Your task to perform on an android device: Play the last video I watched on Youtube Image 0: 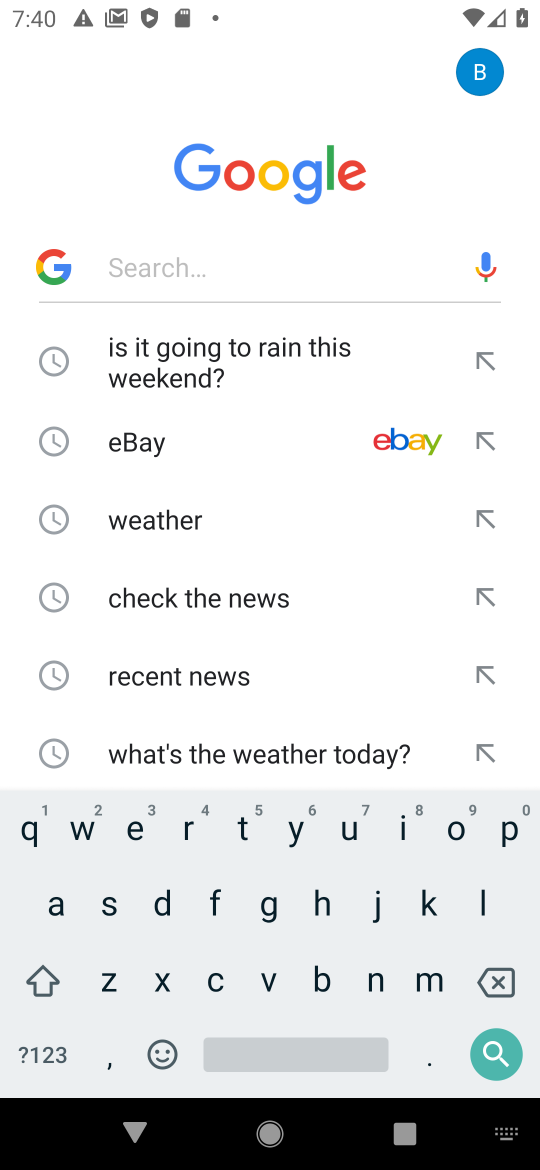
Step 0: press home button
Your task to perform on an android device: Play the last video I watched on Youtube Image 1: 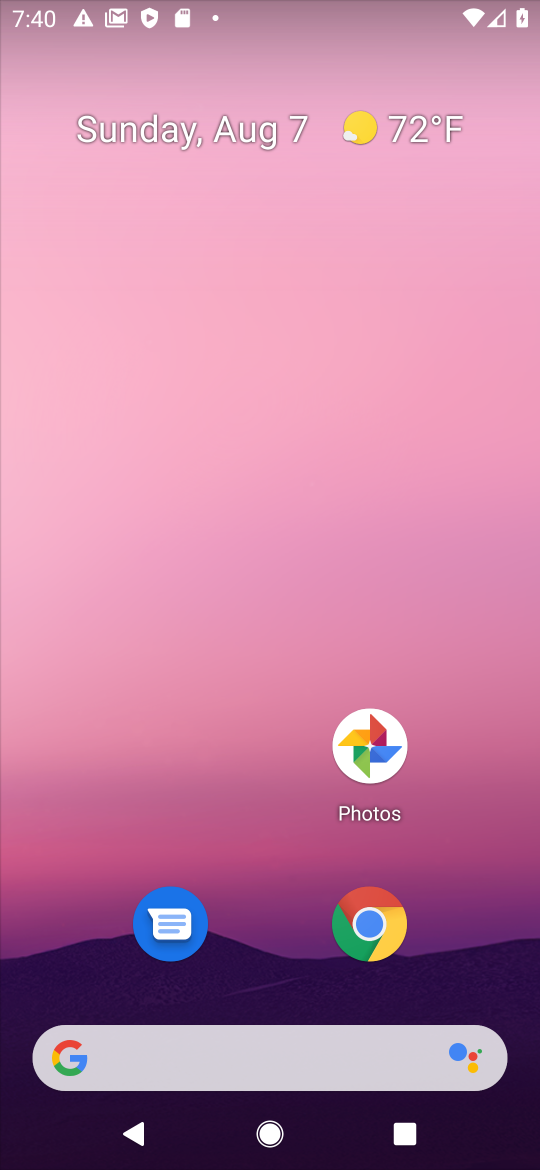
Step 1: drag from (313, 999) to (179, 430)
Your task to perform on an android device: Play the last video I watched on Youtube Image 2: 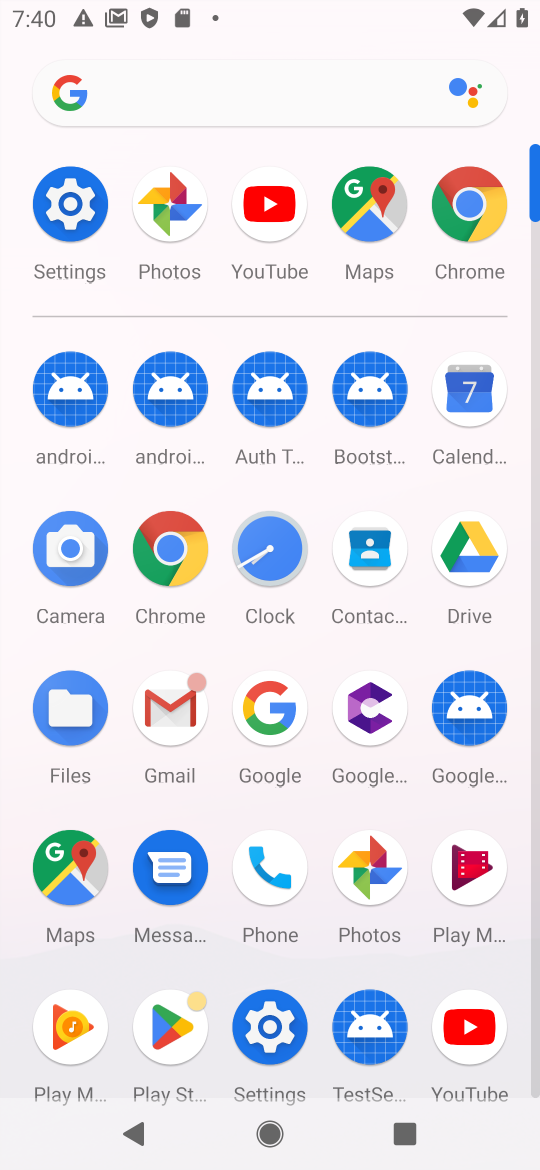
Step 2: click (451, 1035)
Your task to perform on an android device: Play the last video I watched on Youtube Image 3: 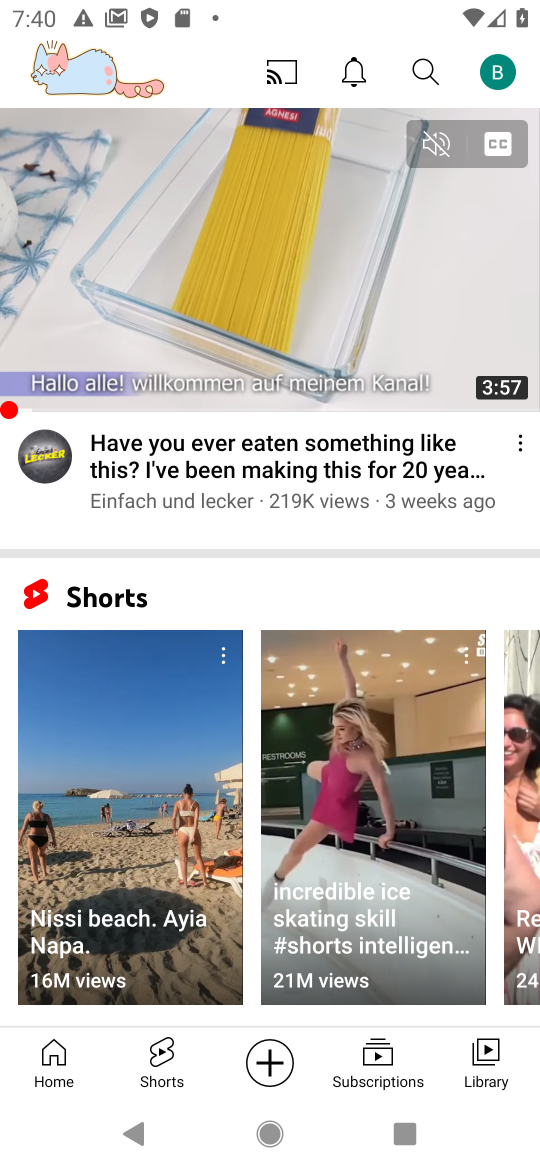
Step 3: click (482, 1064)
Your task to perform on an android device: Play the last video I watched on Youtube Image 4: 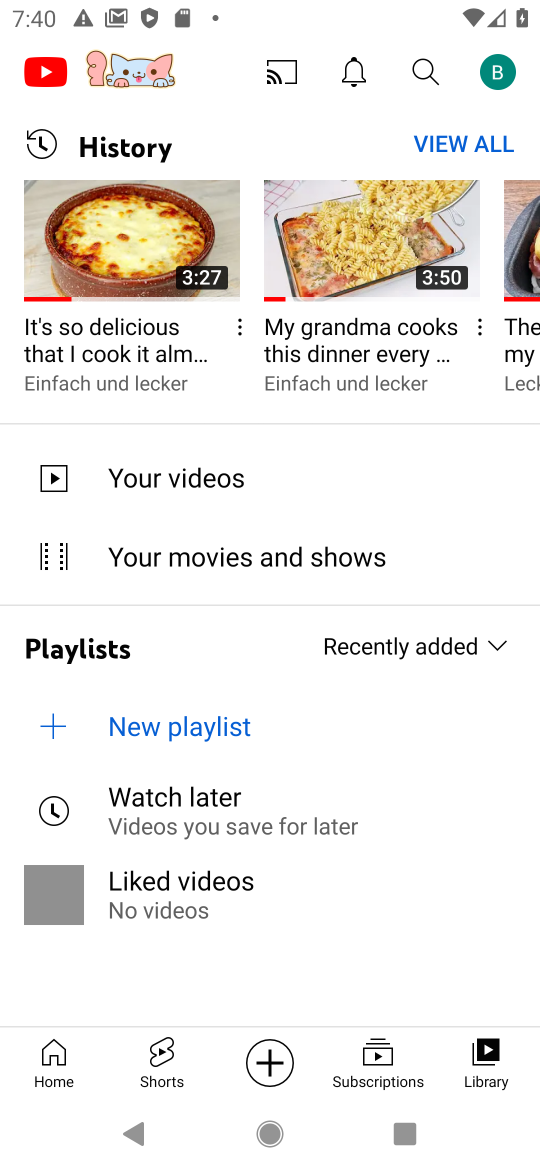
Step 4: click (120, 236)
Your task to perform on an android device: Play the last video I watched on Youtube Image 5: 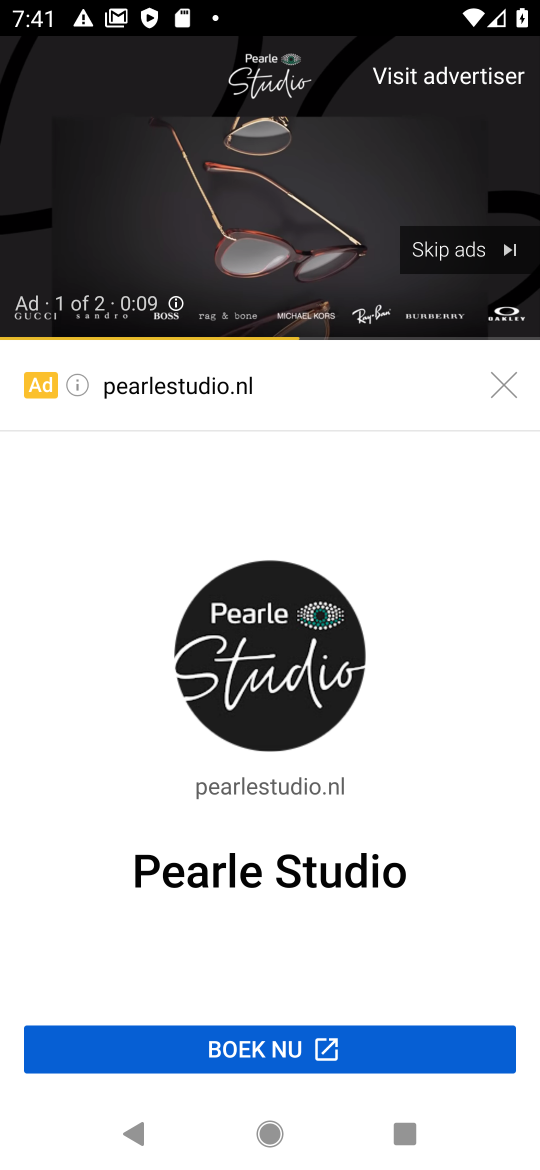
Step 5: click (513, 380)
Your task to perform on an android device: Play the last video I watched on Youtube Image 6: 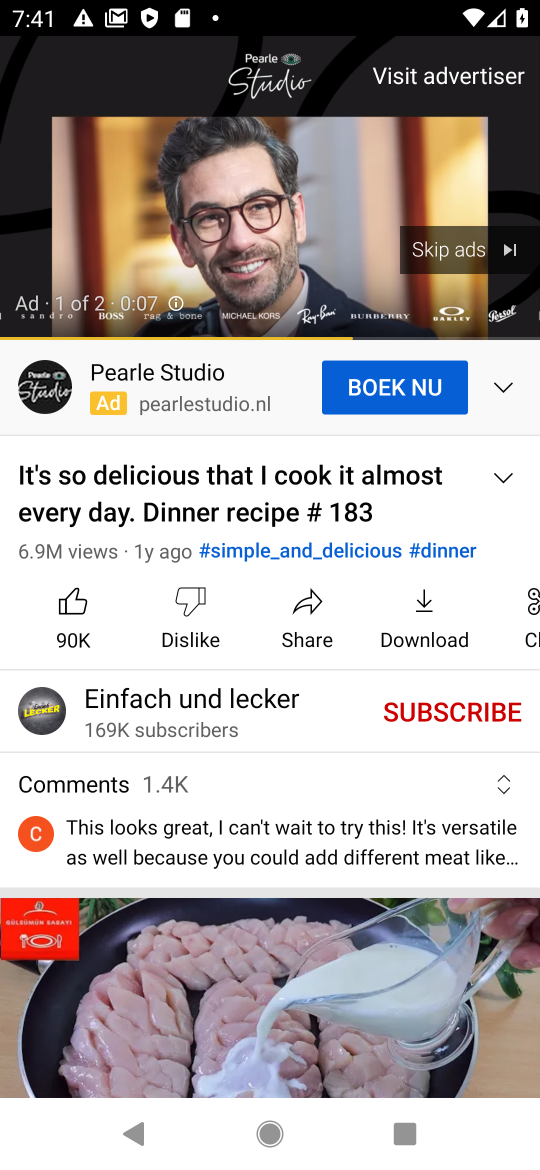
Step 6: click (428, 255)
Your task to perform on an android device: Play the last video I watched on Youtube Image 7: 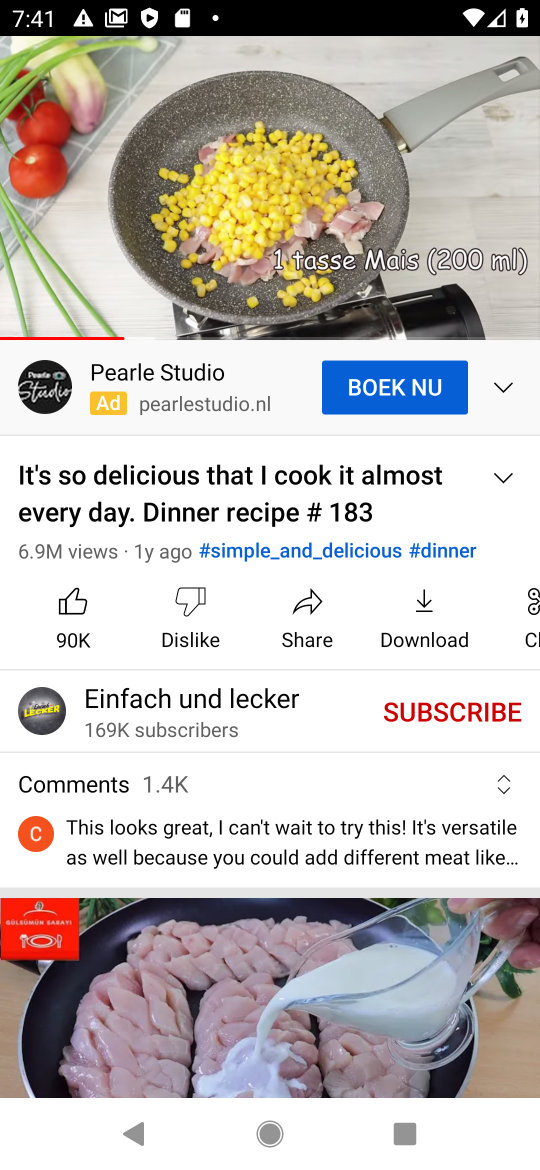
Step 7: click (255, 181)
Your task to perform on an android device: Play the last video I watched on Youtube Image 8: 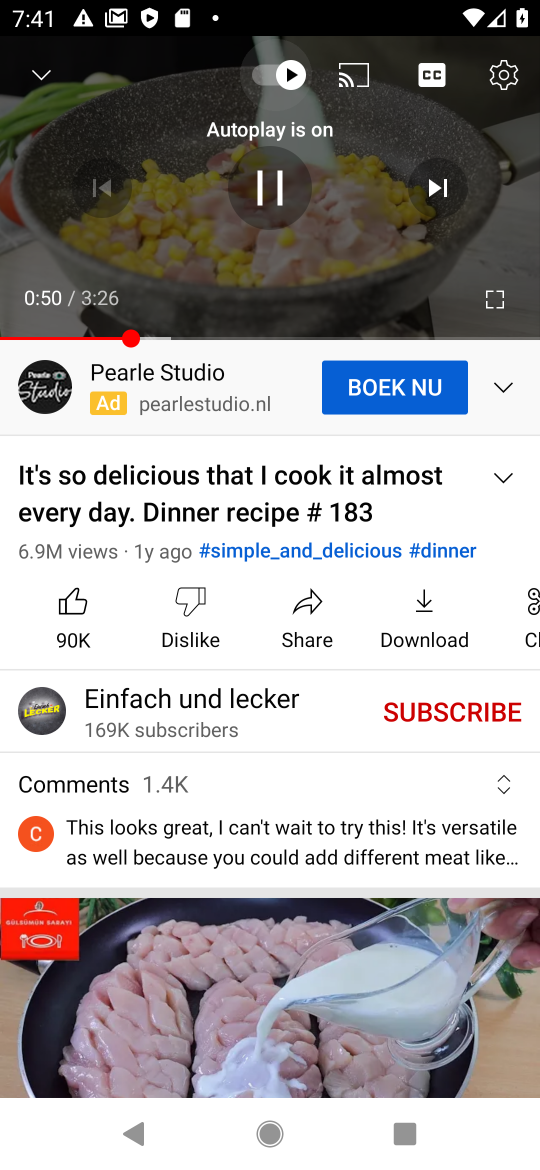
Step 8: task complete